Your task to perform on an android device: Open Google Image 0: 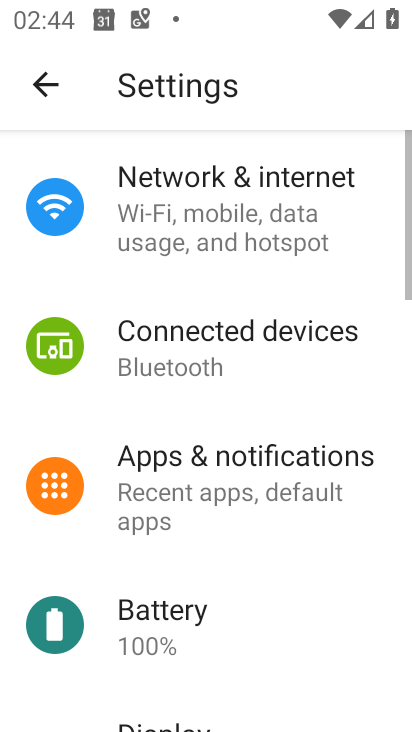
Step 0: press home button
Your task to perform on an android device: Open Google Image 1: 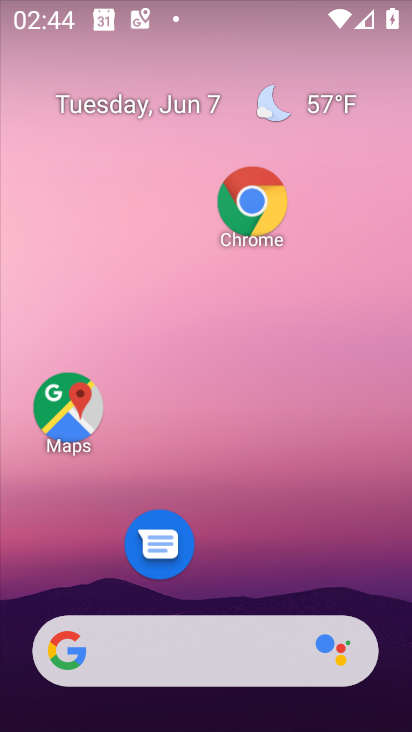
Step 1: drag from (237, 549) to (236, 239)
Your task to perform on an android device: Open Google Image 2: 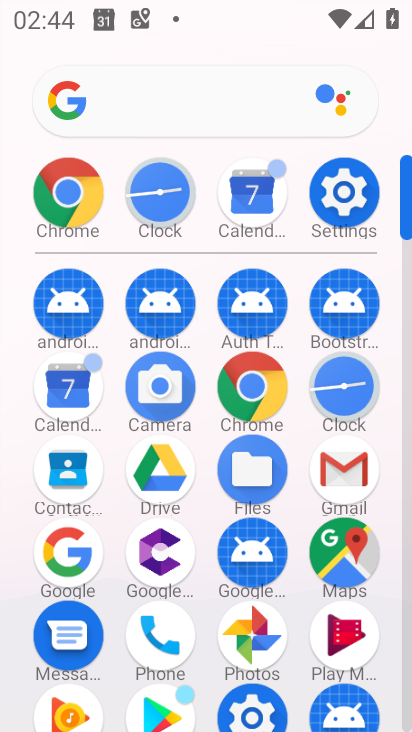
Step 2: click (58, 542)
Your task to perform on an android device: Open Google Image 3: 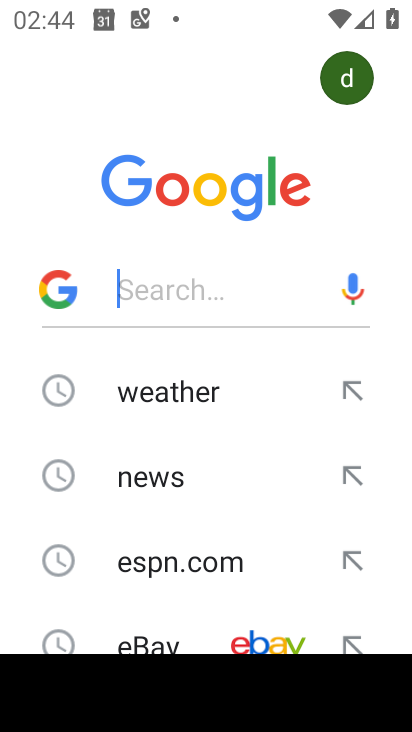
Step 3: task complete